Your task to perform on an android device: Turn off the flashlight Image 0: 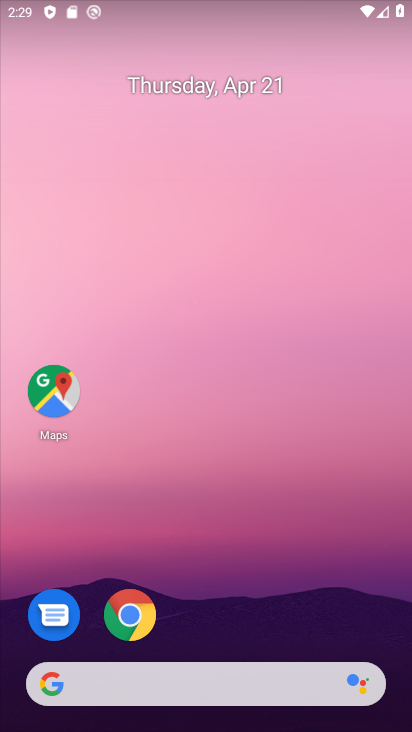
Step 0: drag from (232, 14) to (239, 617)
Your task to perform on an android device: Turn off the flashlight Image 1: 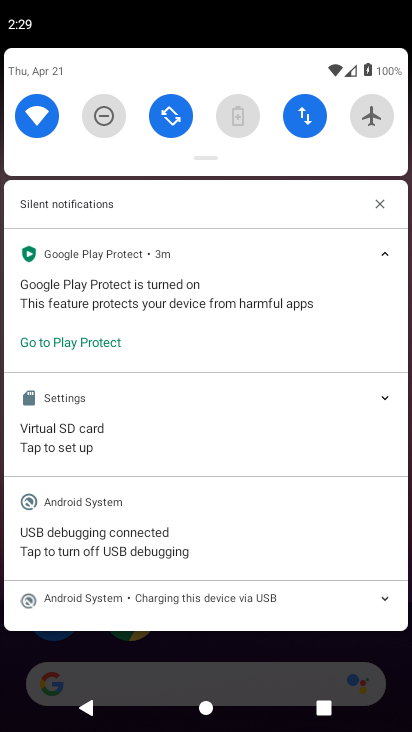
Step 1: drag from (224, 80) to (260, 576)
Your task to perform on an android device: Turn off the flashlight Image 2: 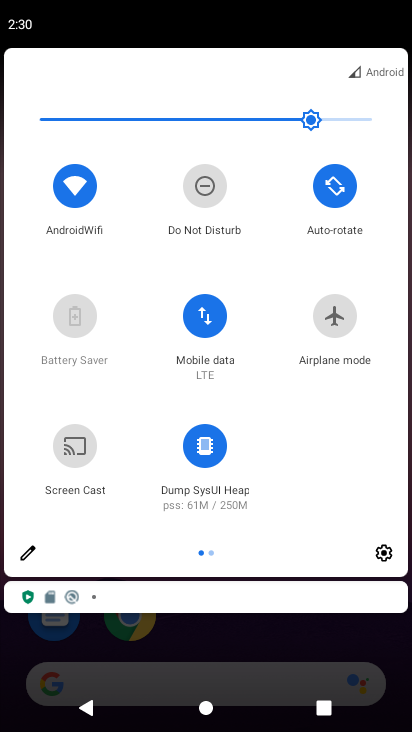
Step 2: click (377, 560)
Your task to perform on an android device: Turn off the flashlight Image 3: 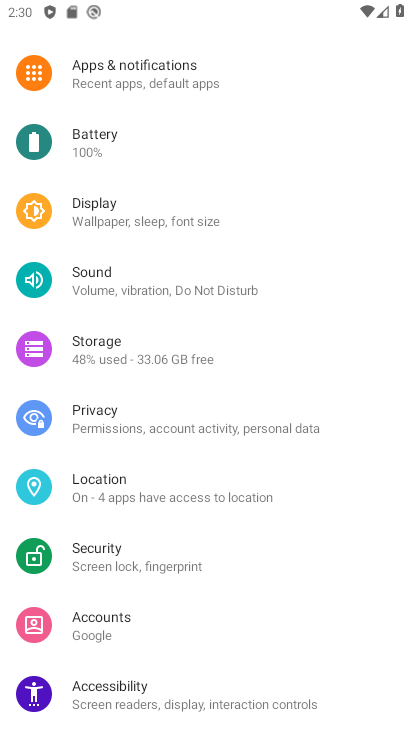
Step 3: task complete